Your task to perform on an android device: change notifications settings Image 0: 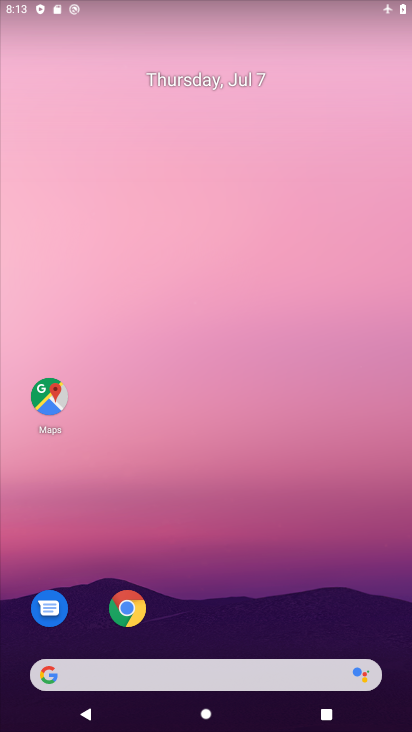
Step 0: drag from (334, 615) to (373, 151)
Your task to perform on an android device: change notifications settings Image 1: 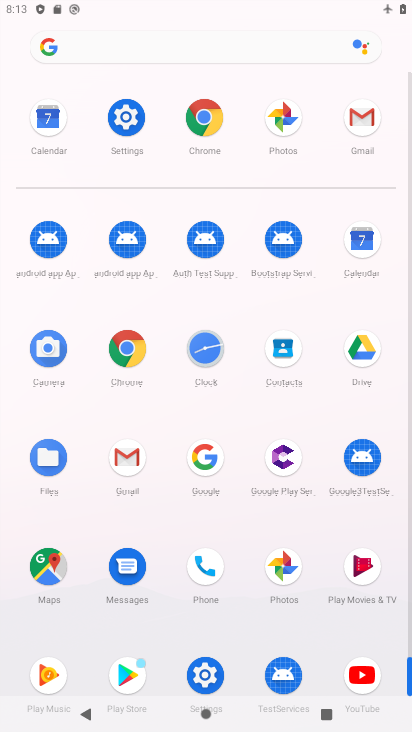
Step 1: click (134, 128)
Your task to perform on an android device: change notifications settings Image 2: 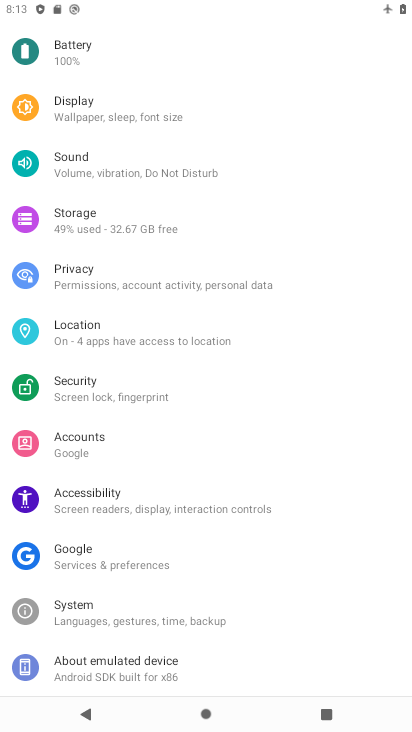
Step 2: drag from (319, 276) to (319, 345)
Your task to perform on an android device: change notifications settings Image 3: 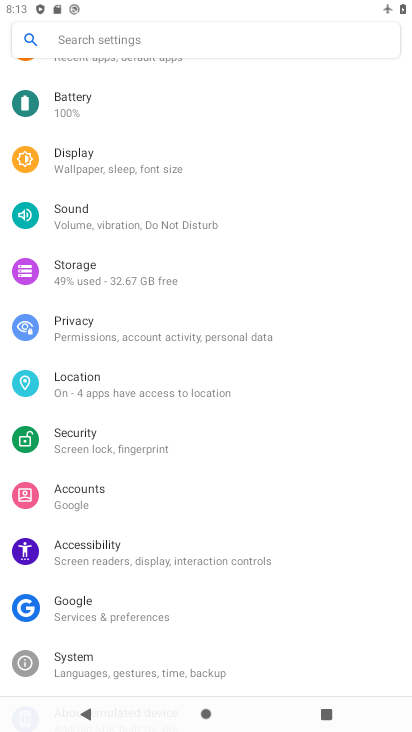
Step 3: drag from (317, 253) to (318, 342)
Your task to perform on an android device: change notifications settings Image 4: 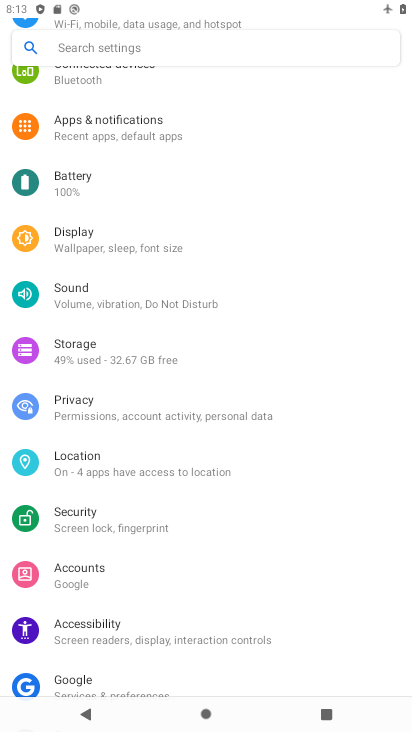
Step 4: drag from (318, 222) to (319, 321)
Your task to perform on an android device: change notifications settings Image 5: 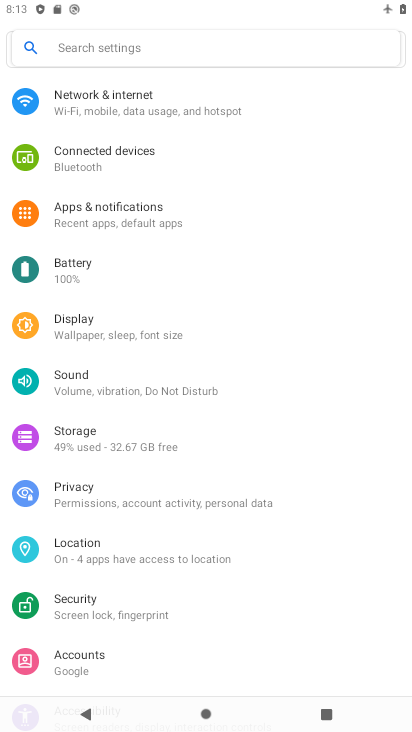
Step 5: drag from (324, 189) to (318, 322)
Your task to perform on an android device: change notifications settings Image 6: 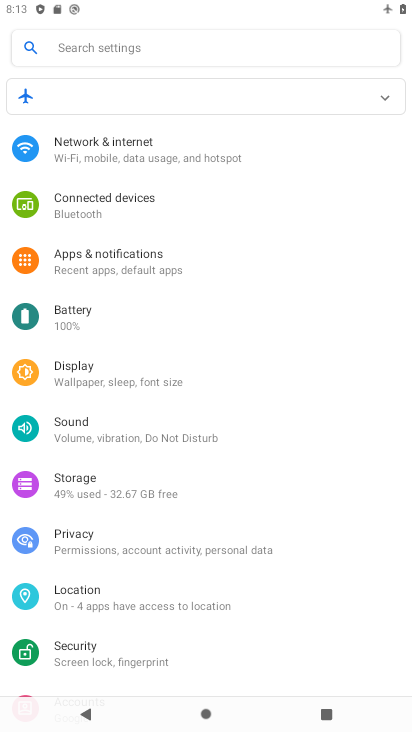
Step 6: click (182, 265)
Your task to perform on an android device: change notifications settings Image 7: 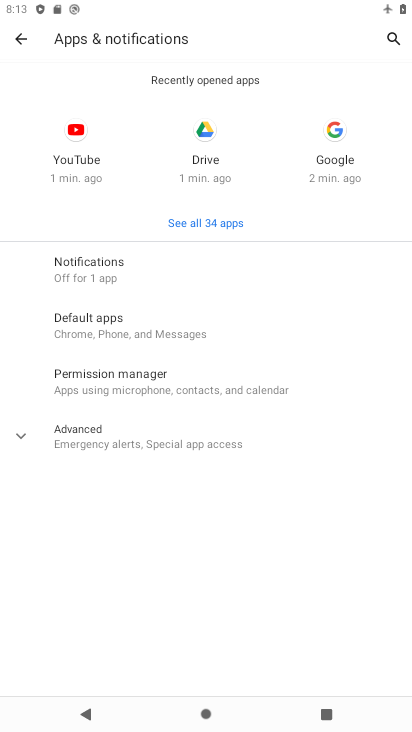
Step 7: click (131, 264)
Your task to perform on an android device: change notifications settings Image 8: 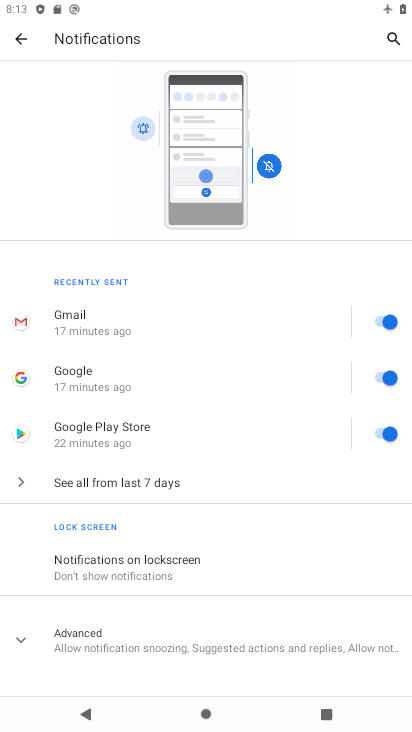
Step 8: click (385, 325)
Your task to perform on an android device: change notifications settings Image 9: 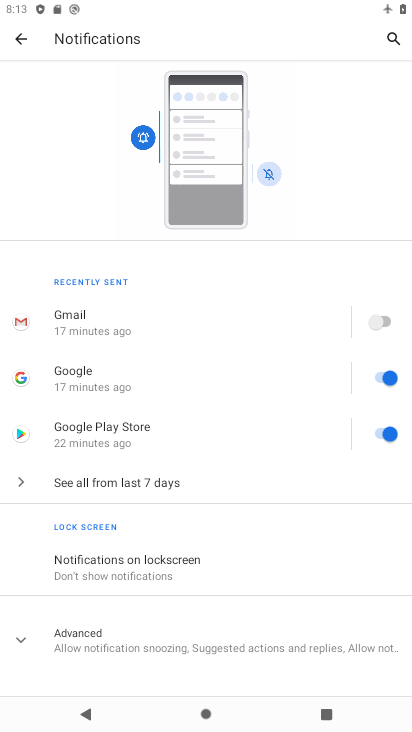
Step 9: click (374, 369)
Your task to perform on an android device: change notifications settings Image 10: 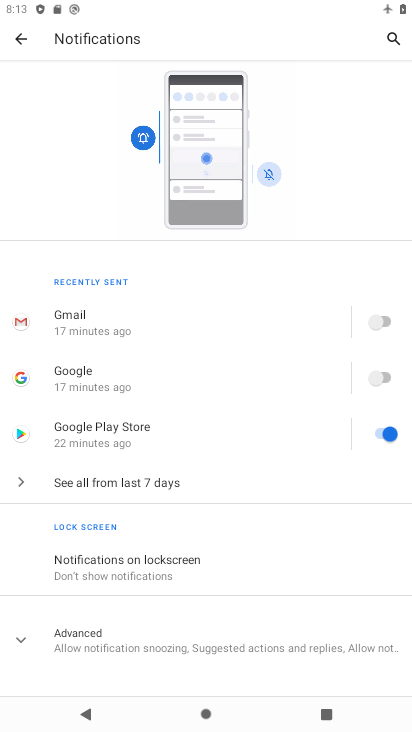
Step 10: click (386, 438)
Your task to perform on an android device: change notifications settings Image 11: 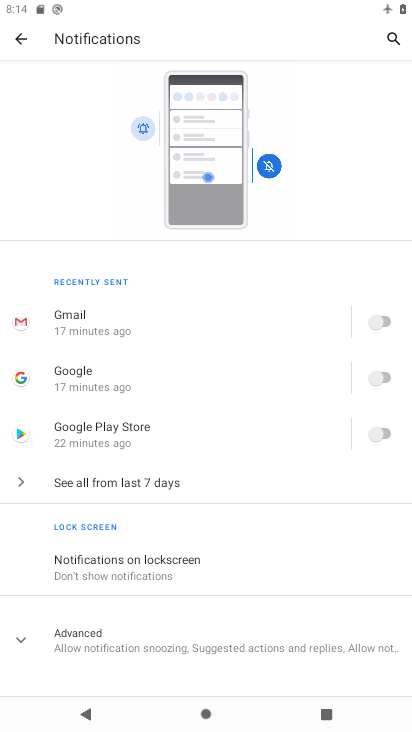
Step 11: task complete